Your task to perform on an android device: Open calendar and show me the fourth week of next month Image 0: 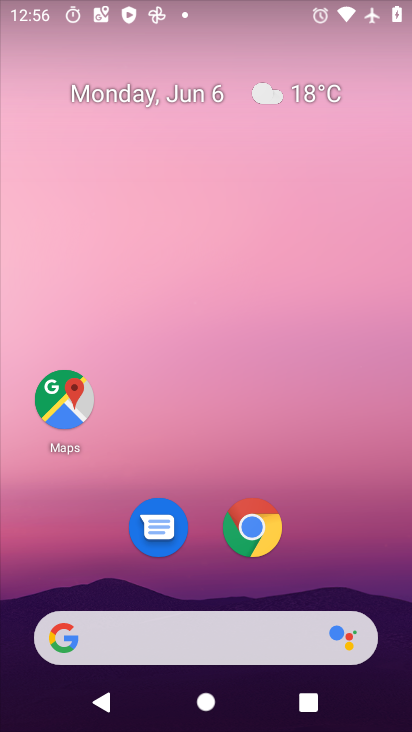
Step 0: drag from (308, 506) to (261, 53)
Your task to perform on an android device: Open calendar and show me the fourth week of next month Image 1: 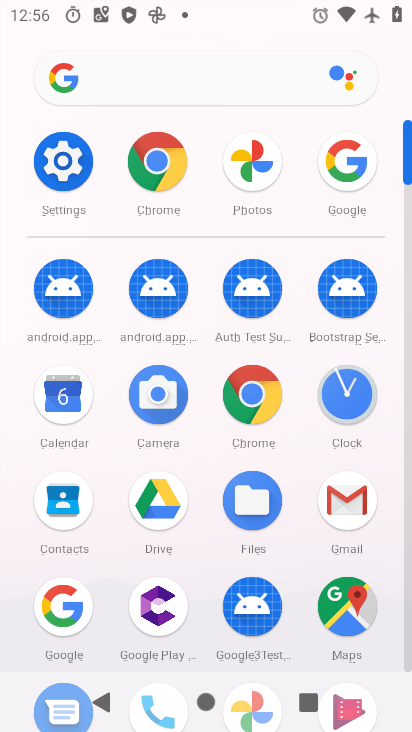
Step 1: click (54, 384)
Your task to perform on an android device: Open calendar and show me the fourth week of next month Image 2: 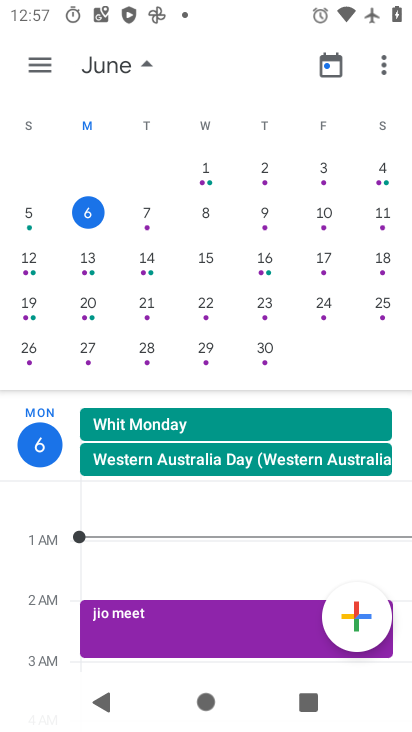
Step 2: click (147, 60)
Your task to perform on an android device: Open calendar and show me the fourth week of next month Image 3: 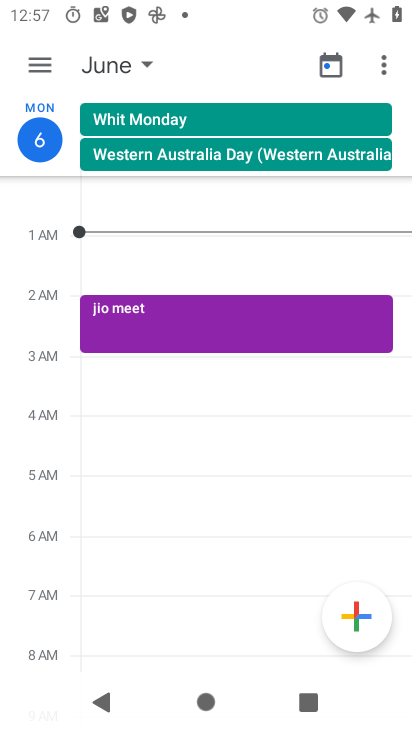
Step 3: click (117, 65)
Your task to perform on an android device: Open calendar and show me the fourth week of next month Image 4: 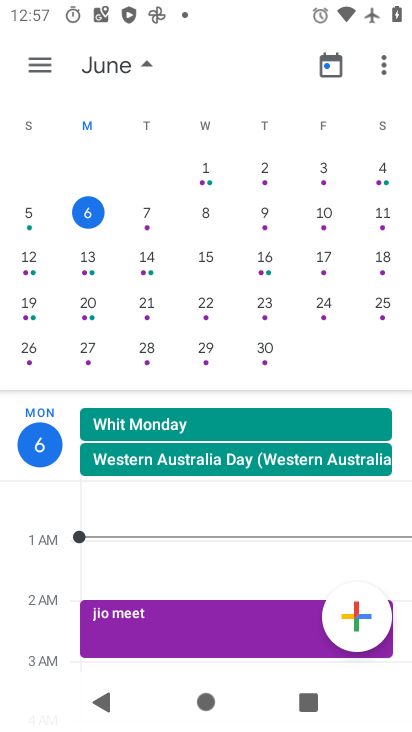
Step 4: drag from (369, 250) to (0, 298)
Your task to perform on an android device: Open calendar and show me the fourth week of next month Image 5: 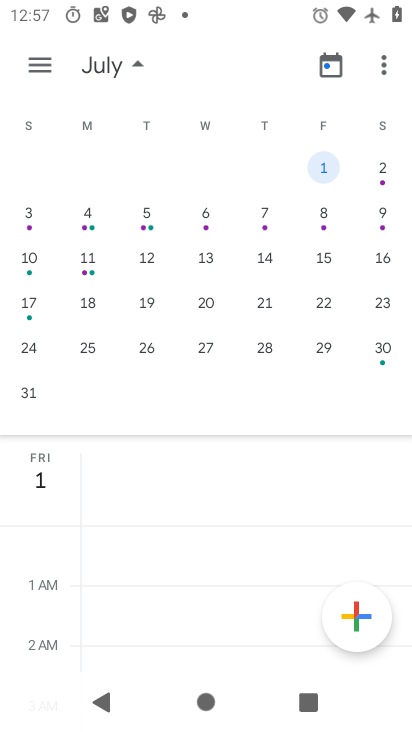
Step 5: click (24, 315)
Your task to perform on an android device: Open calendar and show me the fourth week of next month Image 6: 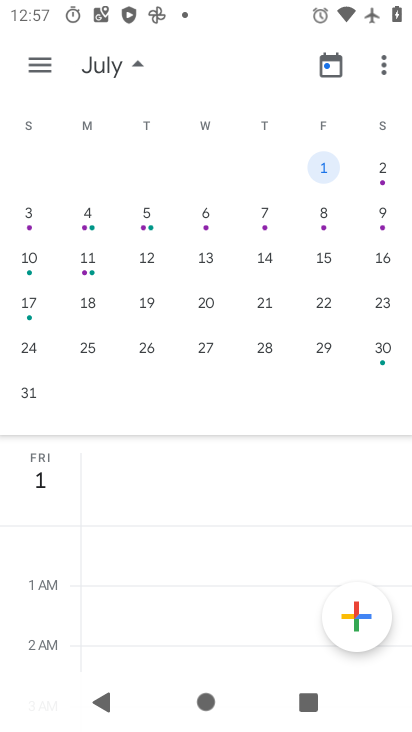
Step 6: click (31, 304)
Your task to perform on an android device: Open calendar and show me the fourth week of next month Image 7: 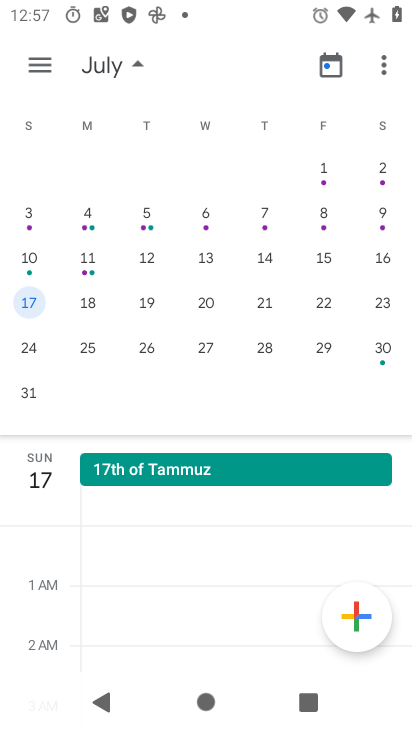
Step 7: click (41, 64)
Your task to perform on an android device: Open calendar and show me the fourth week of next month Image 8: 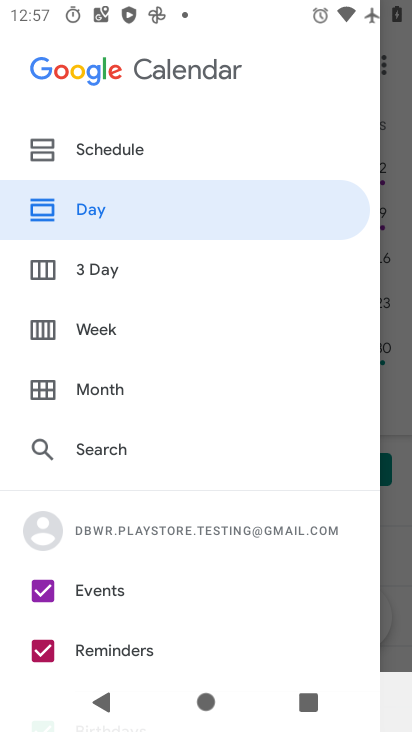
Step 8: click (139, 332)
Your task to perform on an android device: Open calendar and show me the fourth week of next month Image 9: 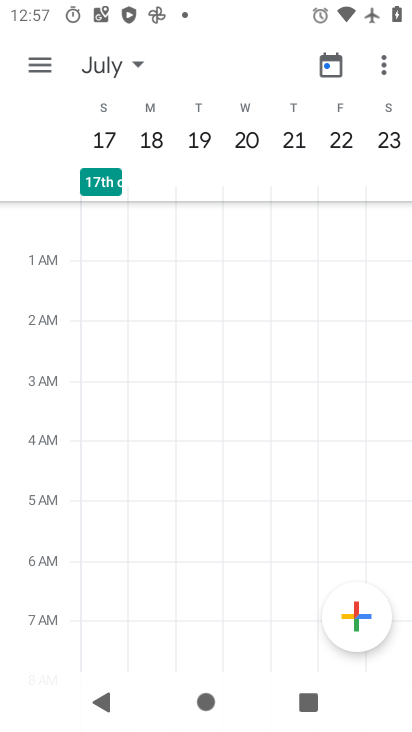
Step 9: click (134, 61)
Your task to perform on an android device: Open calendar and show me the fourth week of next month Image 10: 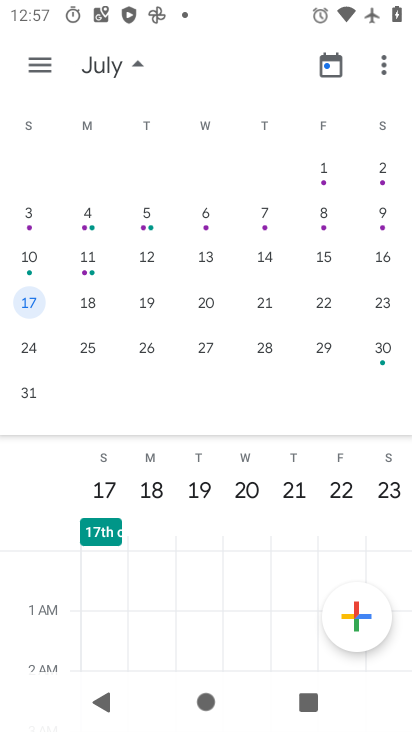
Step 10: click (37, 63)
Your task to perform on an android device: Open calendar and show me the fourth week of next month Image 11: 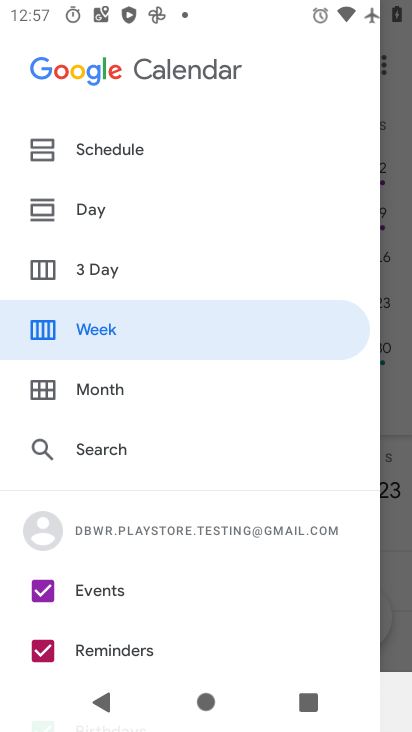
Step 11: click (383, 341)
Your task to perform on an android device: Open calendar and show me the fourth week of next month Image 12: 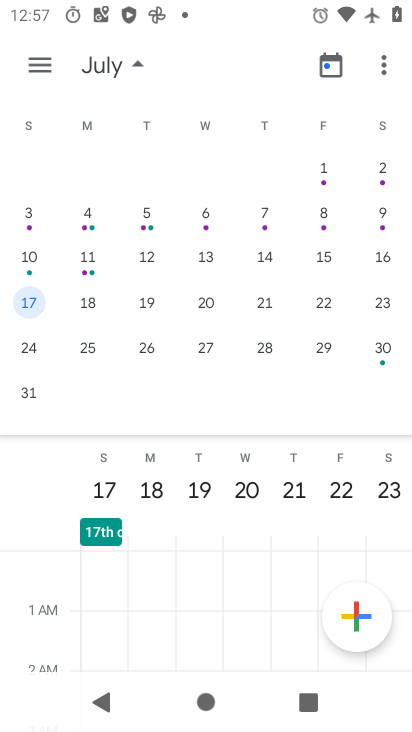
Step 12: task complete